Your task to perform on an android device: clear all cookies in the chrome app Image 0: 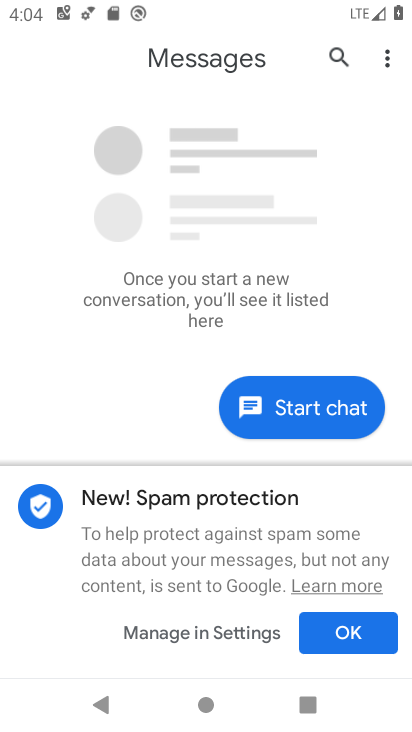
Step 0: press home button
Your task to perform on an android device: clear all cookies in the chrome app Image 1: 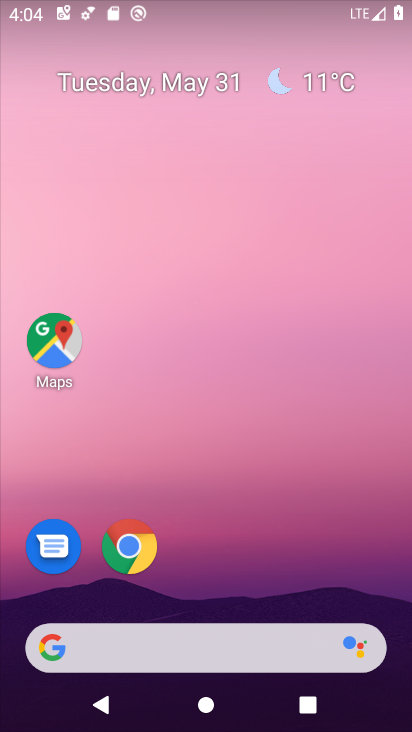
Step 1: click (126, 551)
Your task to perform on an android device: clear all cookies in the chrome app Image 2: 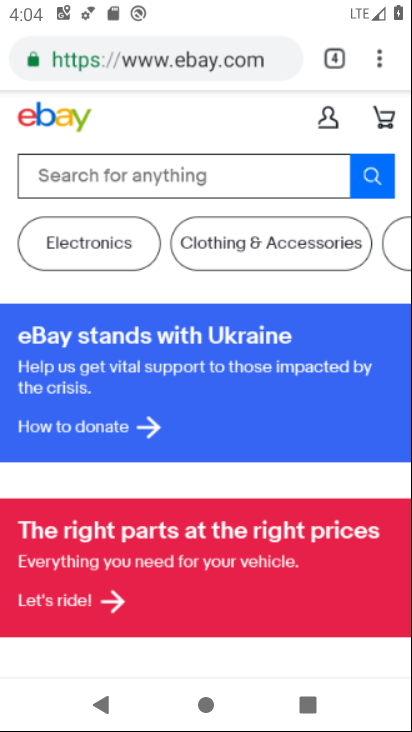
Step 2: click (384, 57)
Your task to perform on an android device: clear all cookies in the chrome app Image 3: 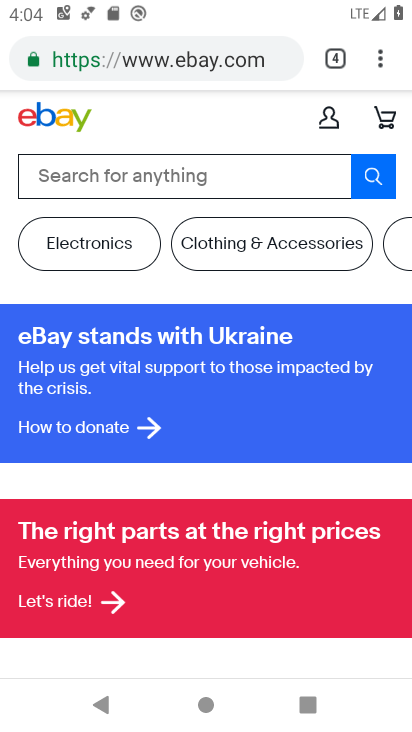
Step 3: click (376, 54)
Your task to perform on an android device: clear all cookies in the chrome app Image 4: 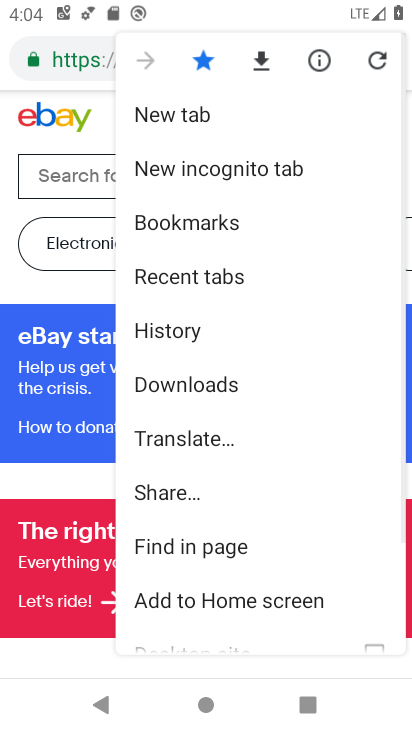
Step 4: click (187, 334)
Your task to perform on an android device: clear all cookies in the chrome app Image 5: 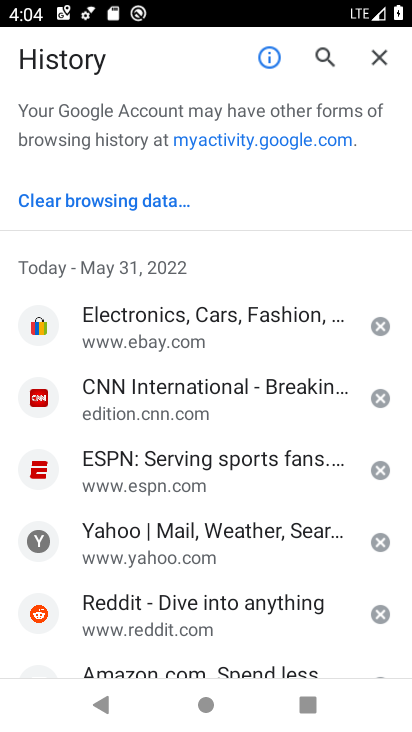
Step 5: click (107, 116)
Your task to perform on an android device: clear all cookies in the chrome app Image 6: 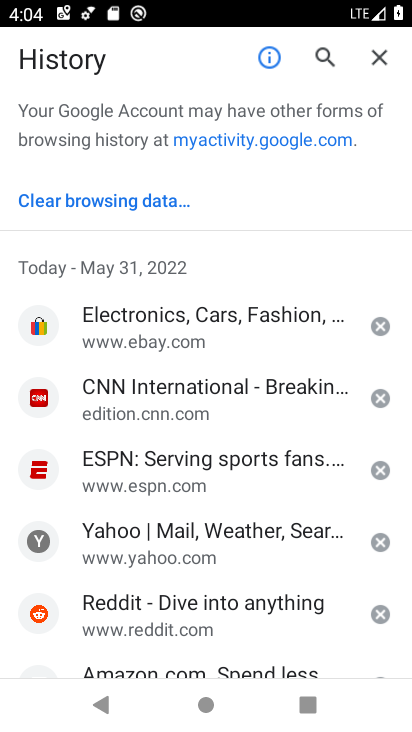
Step 6: click (127, 198)
Your task to perform on an android device: clear all cookies in the chrome app Image 7: 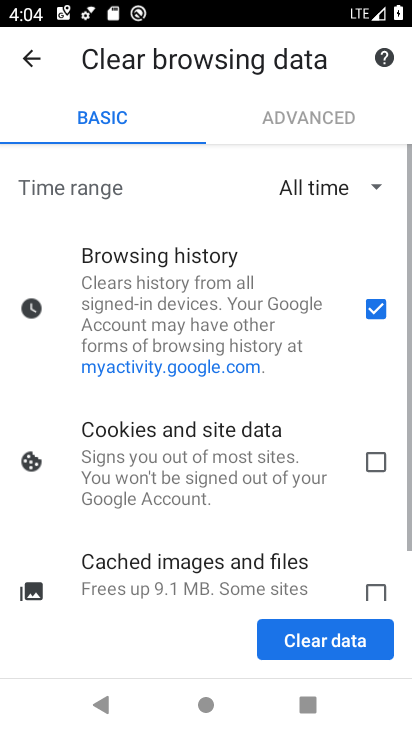
Step 7: click (383, 454)
Your task to perform on an android device: clear all cookies in the chrome app Image 8: 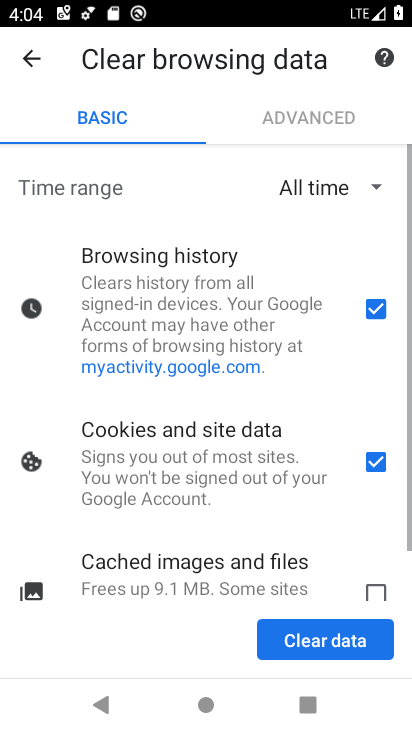
Step 8: click (373, 299)
Your task to perform on an android device: clear all cookies in the chrome app Image 9: 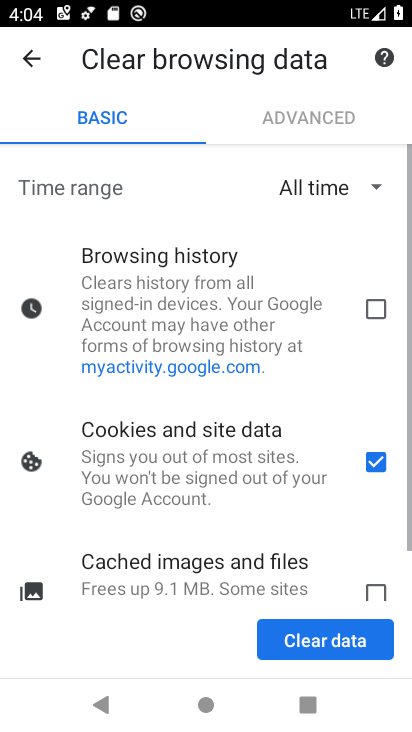
Step 9: click (343, 640)
Your task to perform on an android device: clear all cookies in the chrome app Image 10: 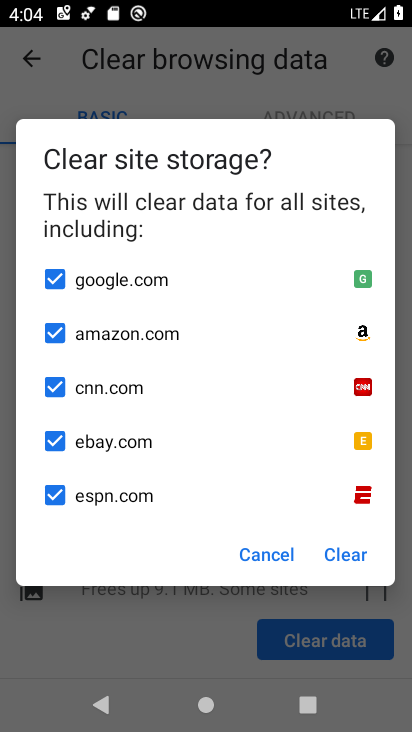
Step 10: click (347, 552)
Your task to perform on an android device: clear all cookies in the chrome app Image 11: 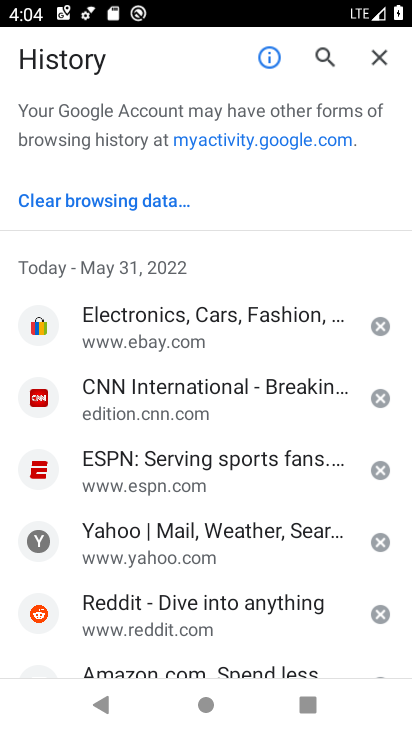
Step 11: task complete